Your task to perform on an android device: clear all cookies in the chrome app Image 0: 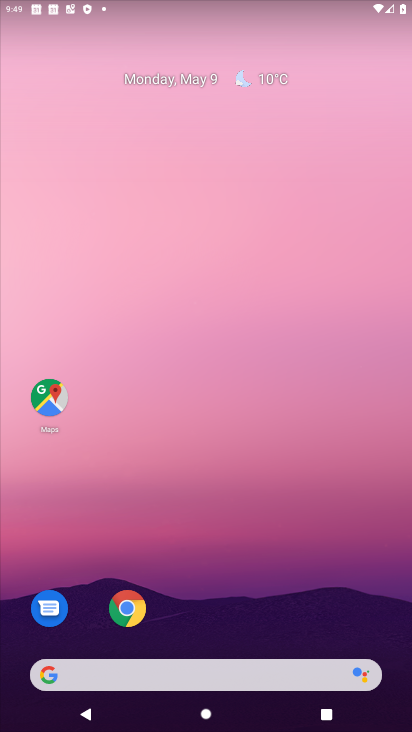
Step 0: click (131, 609)
Your task to perform on an android device: clear all cookies in the chrome app Image 1: 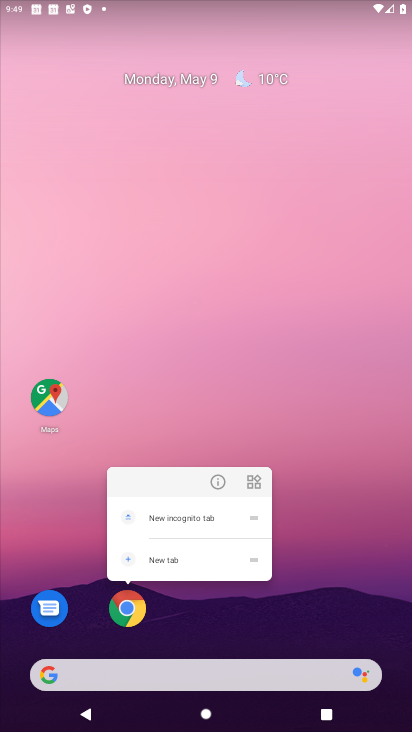
Step 1: click (132, 613)
Your task to perform on an android device: clear all cookies in the chrome app Image 2: 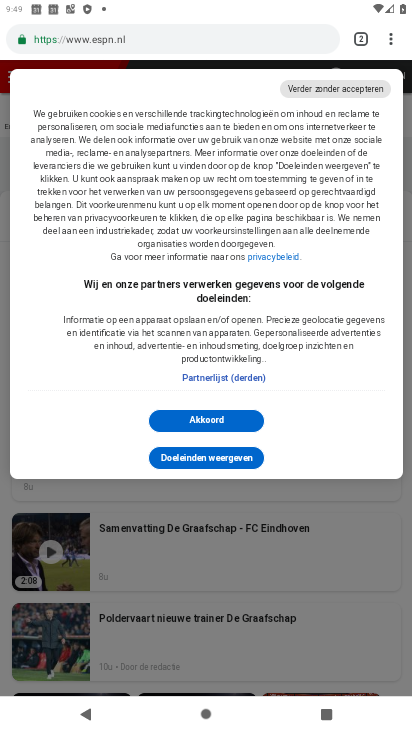
Step 2: drag from (395, 37) to (229, 216)
Your task to perform on an android device: clear all cookies in the chrome app Image 3: 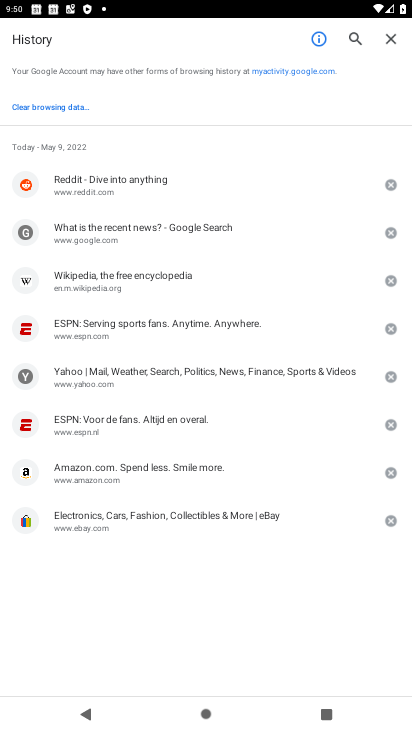
Step 3: click (48, 106)
Your task to perform on an android device: clear all cookies in the chrome app Image 4: 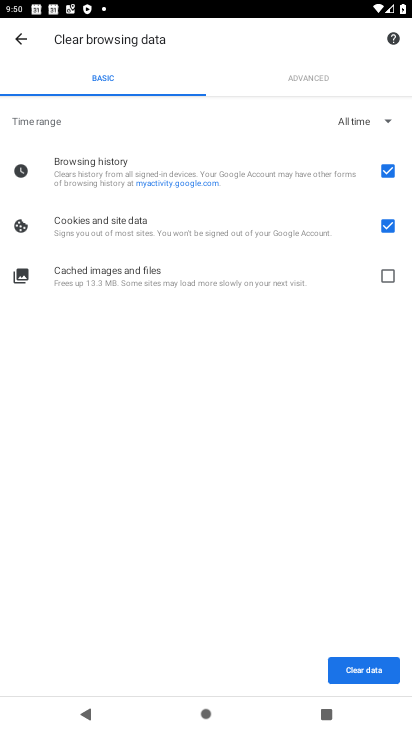
Step 4: click (391, 164)
Your task to perform on an android device: clear all cookies in the chrome app Image 5: 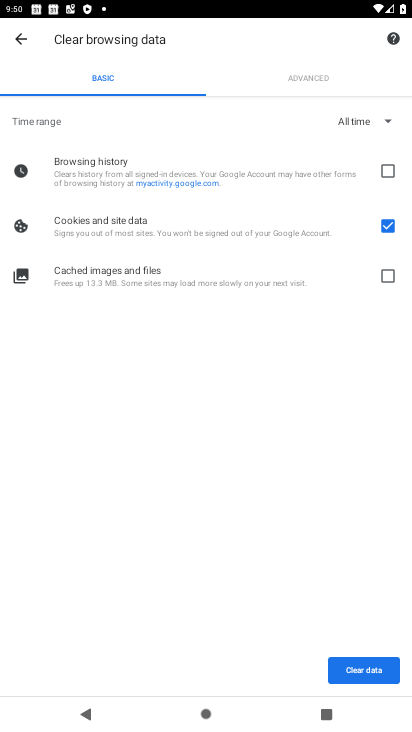
Step 5: click (378, 672)
Your task to perform on an android device: clear all cookies in the chrome app Image 6: 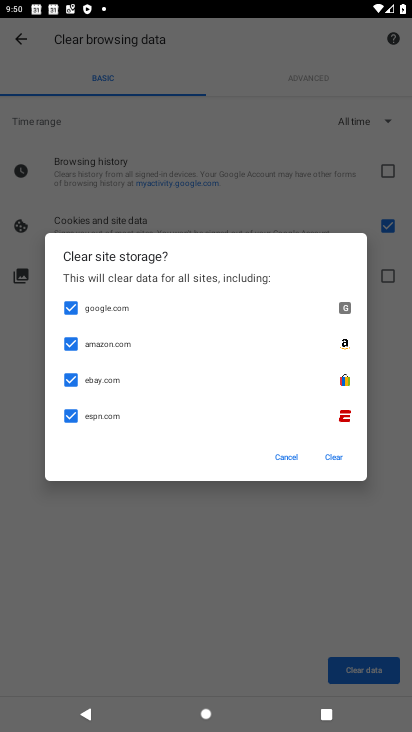
Step 6: click (342, 452)
Your task to perform on an android device: clear all cookies in the chrome app Image 7: 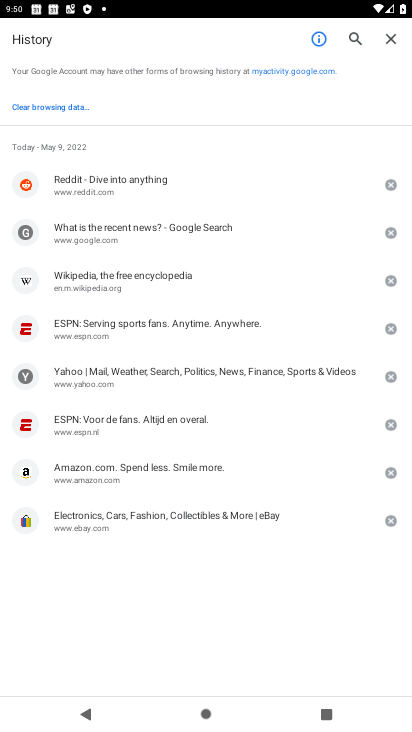
Step 7: task complete